Your task to perform on an android device: Show me popular games on the Play Store Image 0: 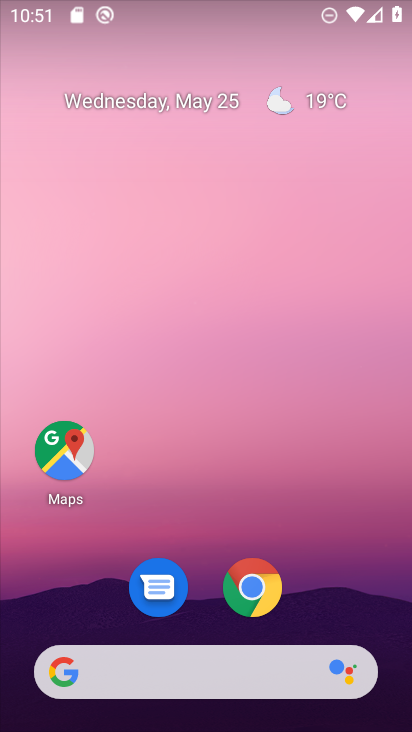
Step 0: drag from (382, 614) to (344, 121)
Your task to perform on an android device: Show me popular games on the Play Store Image 1: 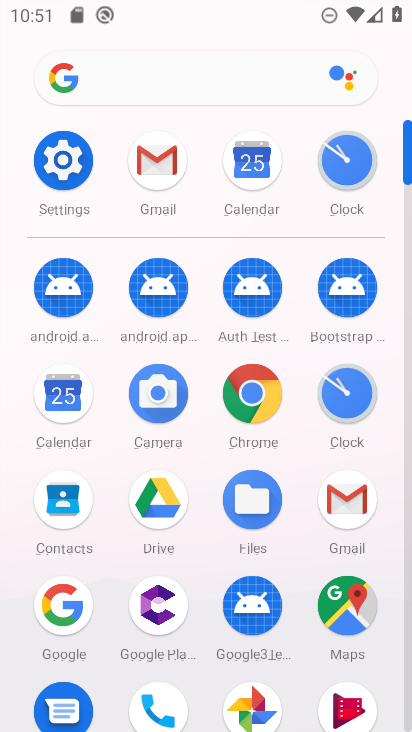
Step 1: click (408, 715)
Your task to perform on an android device: Show me popular games on the Play Store Image 2: 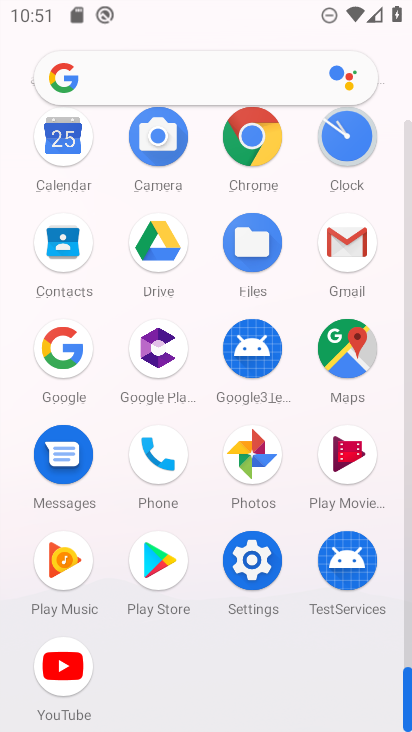
Step 2: click (160, 561)
Your task to perform on an android device: Show me popular games on the Play Store Image 3: 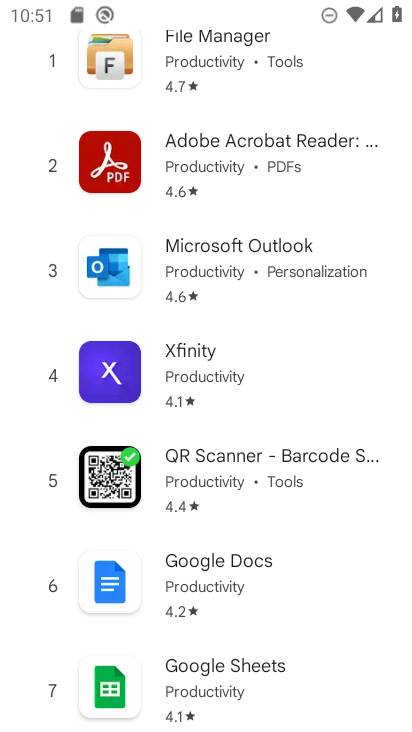
Step 3: press back button
Your task to perform on an android device: Show me popular games on the Play Store Image 4: 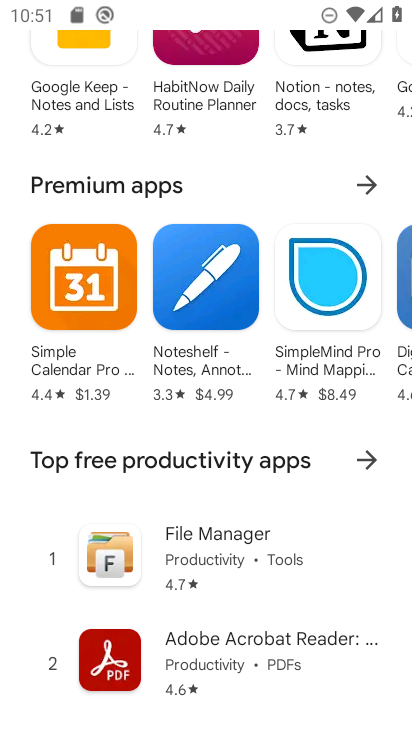
Step 4: press back button
Your task to perform on an android device: Show me popular games on the Play Store Image 5: 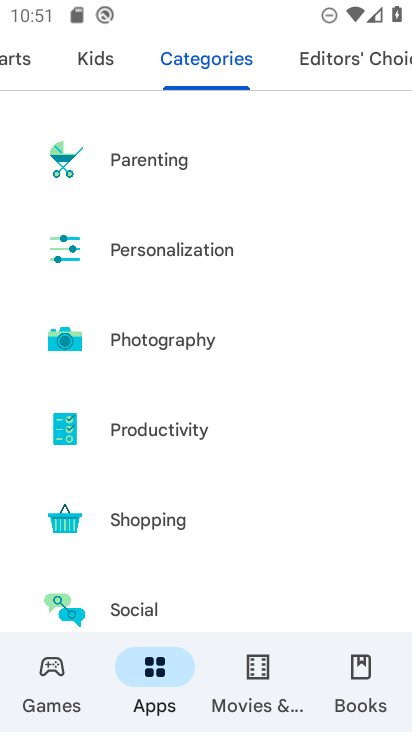
Step 5: drag from (277, 165) to (271, 613)
Your task to perform on an android device: Show me popular games on the Play Store Image 6: 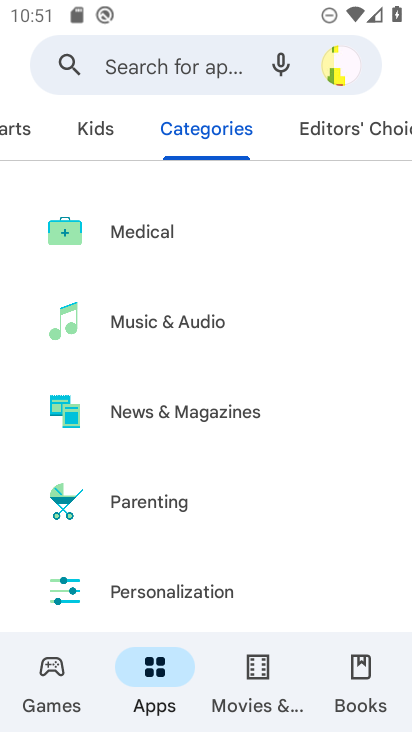
Step 6: drag from (247, 182) to (242, 546)
Your task to perform on an android device: Show me popular games on the Play Store Image 7: 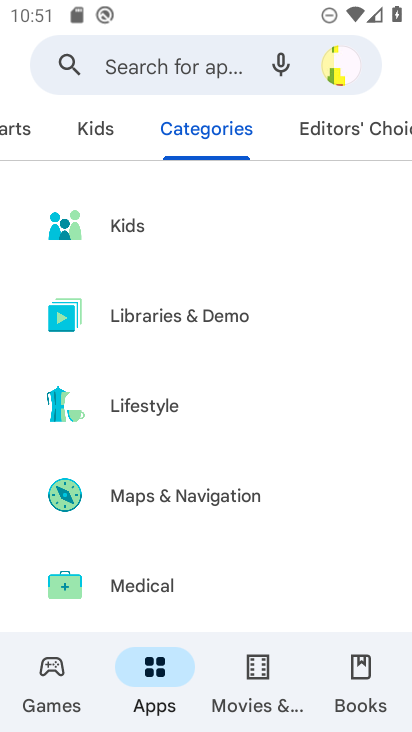
Step 7: drag from (252, 297) to (223, 619)
Your task to perform on an android device: Show me popular games on the Play Store Image 8: 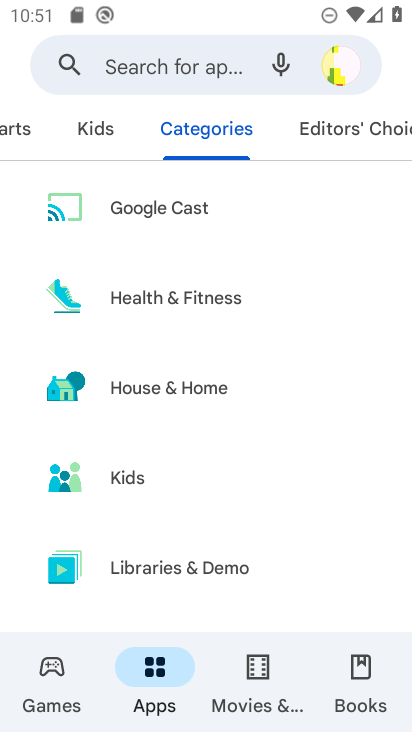
Step 8: drag from (279, 316) to (271, 561)
Your task to perform on an android device: Show me popular games on the Play Store Image 9: 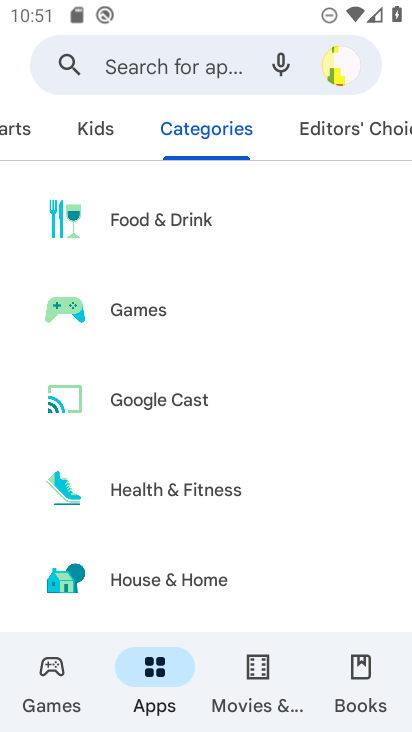
Step 9: click (131, 305)
Your task to perform on an android device: Show me popular games on the Play Store Image 10: 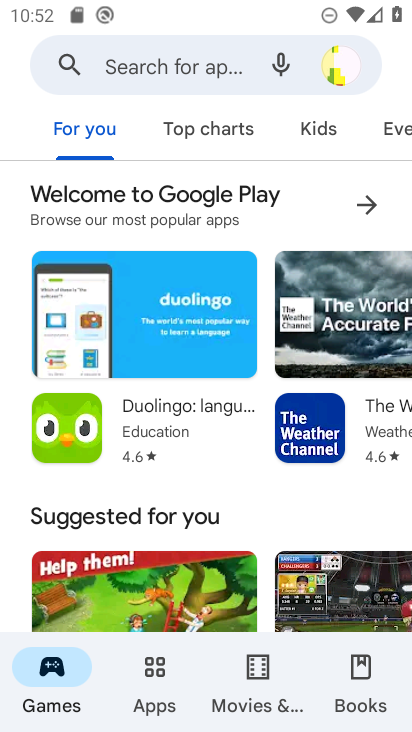
Step 10: drag from (264, 547) to (263, 207)
Your task to perform on an android device: Show me popular games on the Play Store Image 11: 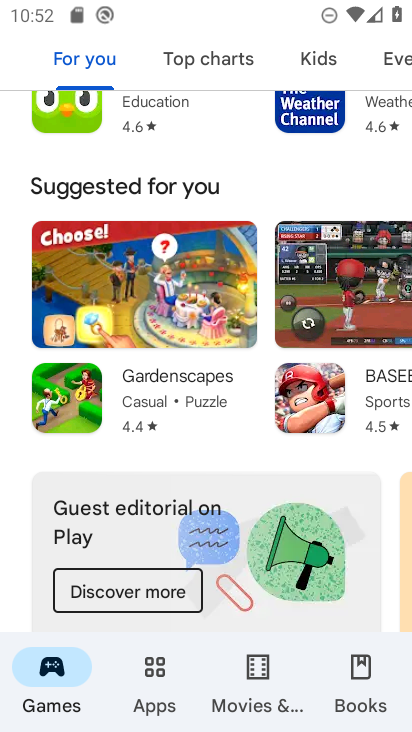
Step 11: drag from (246, 572) to (230, 86)
Your task to perform on an android device: Show me popular games on the Play Store Image 12: 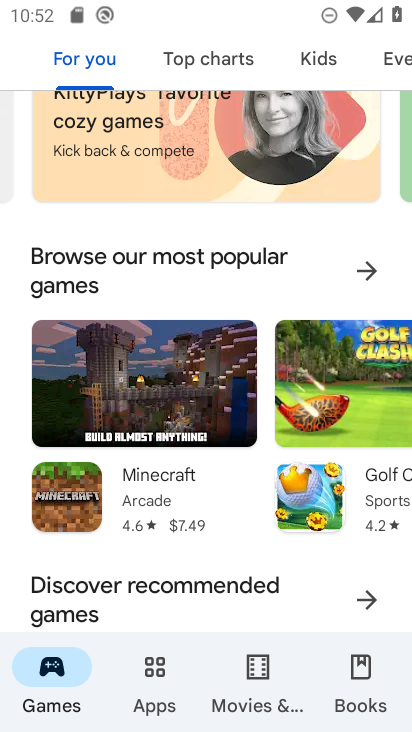
Step 12: click (370, 271)
Your task to perform on an android device: Show me popular games on the Play Store Image 13: 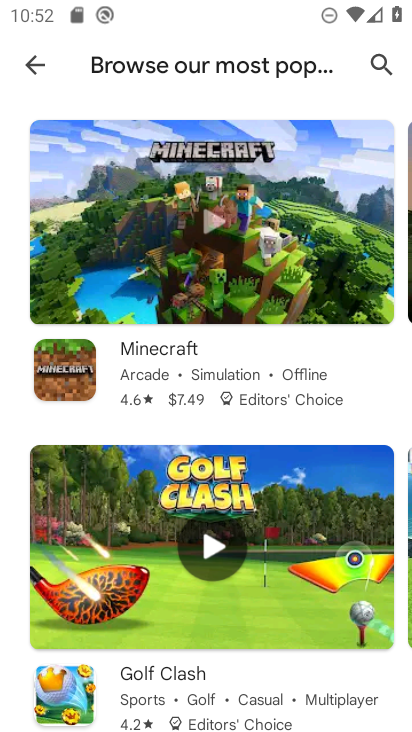
Step 13: task complete